Your task to perform on an android device: toggle translation in the chrome app Image 0: 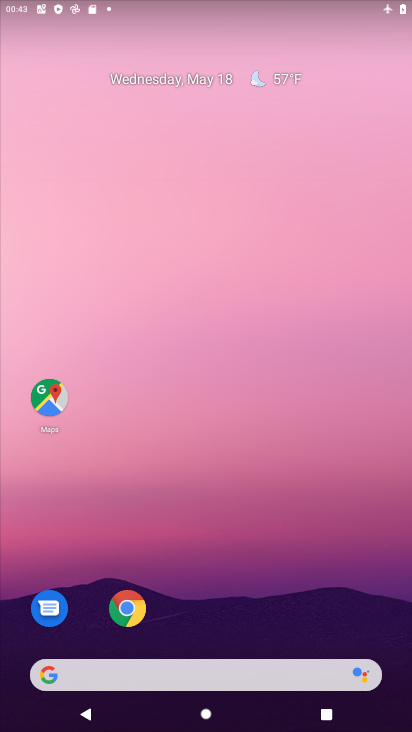
Step 0: click (126, 611)
Your task to perform on an android device: toggle translation in the chrome app Image 1: 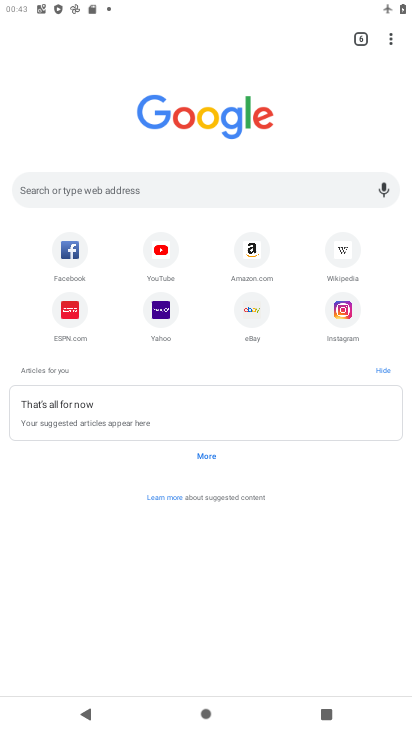
Step 1: click (385, 40)
Your task to perform on an android device: toggle translation in the chrome app Image 2: 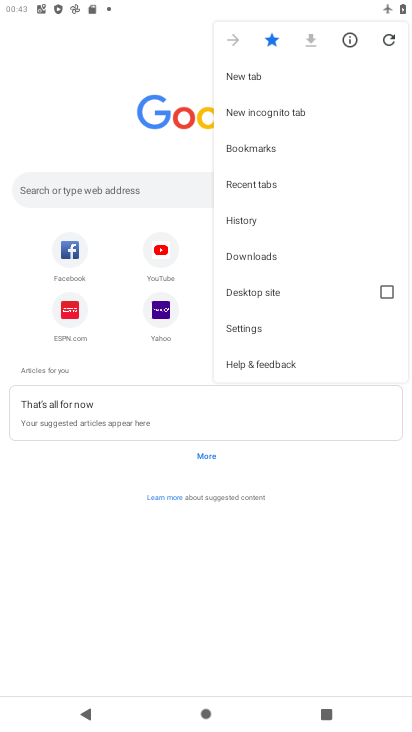
Step 2: click (262, 326)
Your task to perform on an android device: toggle translation in the chrome app Image 3: 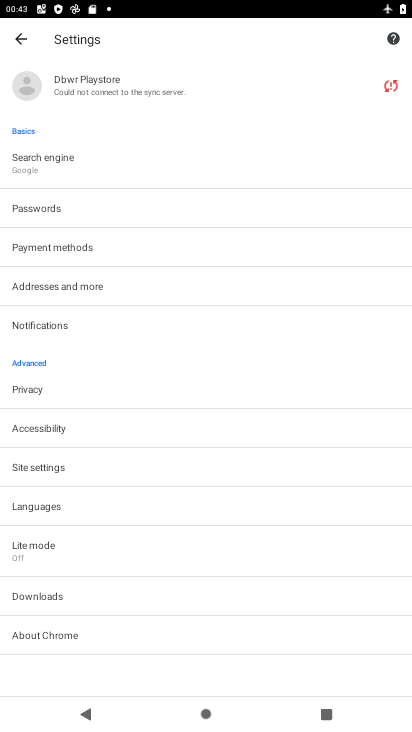
Step 3: drag from (201, 523) to (174, 309)
Your task to perform on an android device: toggle translation in the chrome app Image 4: 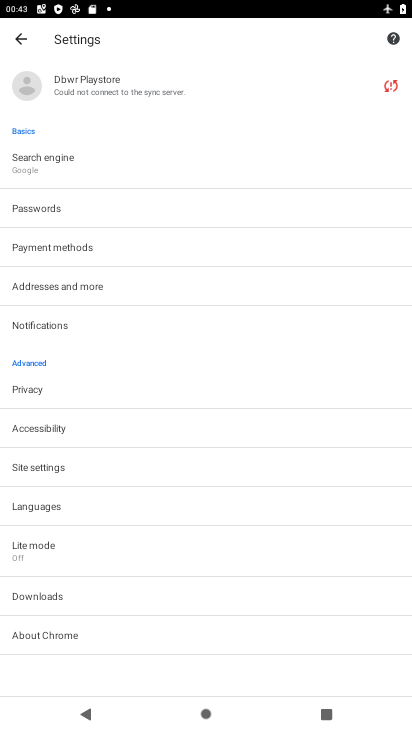
Step 4: click (63, 503)
Your task to perform on an android device: toggle translation in the chrome app Image 5: 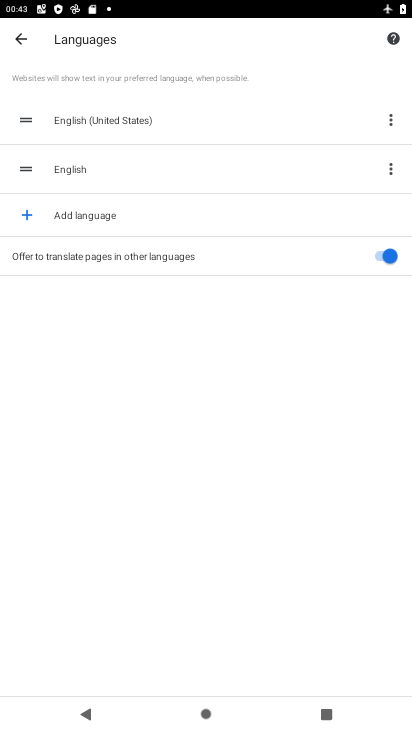
Step 5: click (384, 250)
Your task to perform on an android device: toggle translation in the chrome app Image 6: 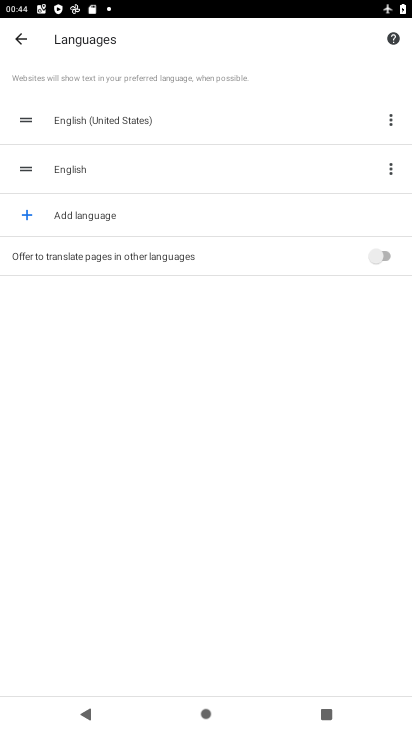
Step 6: task complete